Your task to perform on an android device: Go to battery settings Image 0: 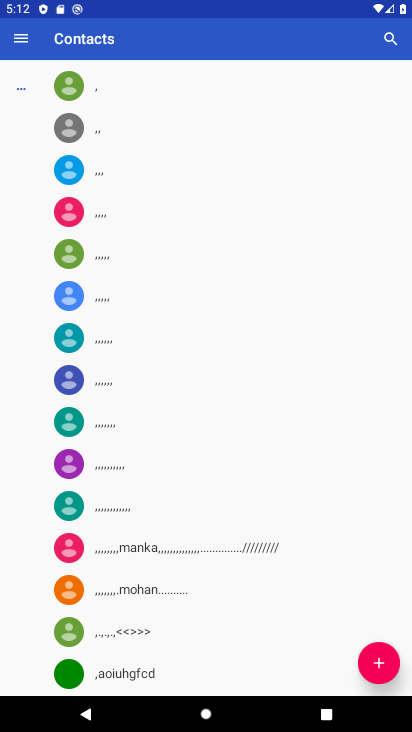
Step 0: press back button
Your task to perform on an android device: Go to battery settings Image 1: 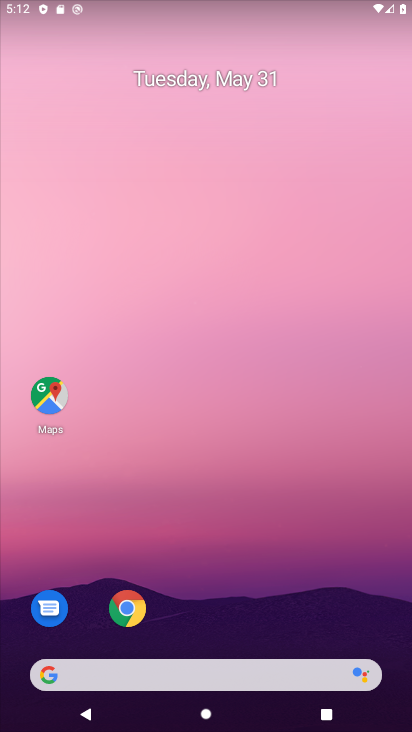
Step 1: drag from (274, 565) to (233, 64)
Your task to perform on an android device: Go to battery settings Image 2: 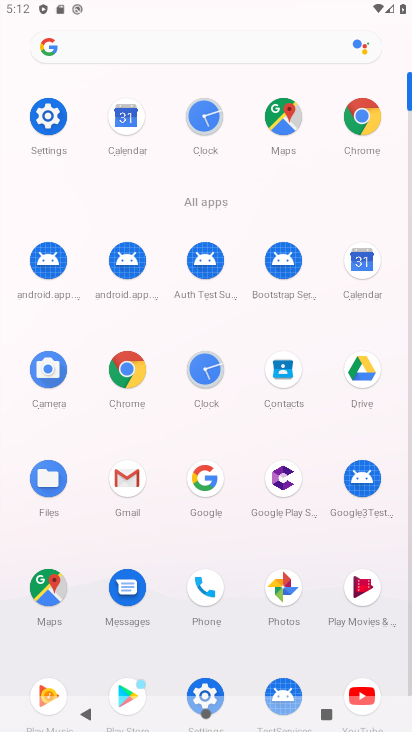
Step 2: click (49, 115)
Your task to perform on an android device: Go to battery settings Image 3: 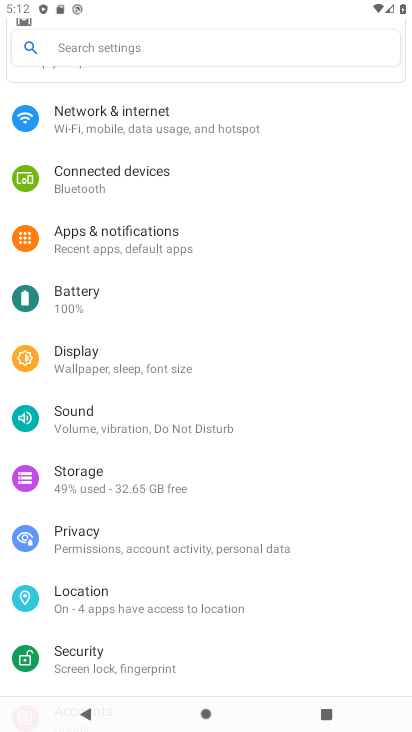
Step 3: click (91, 313)
Your task to perform on an android device: Go to battery settings Image 4: 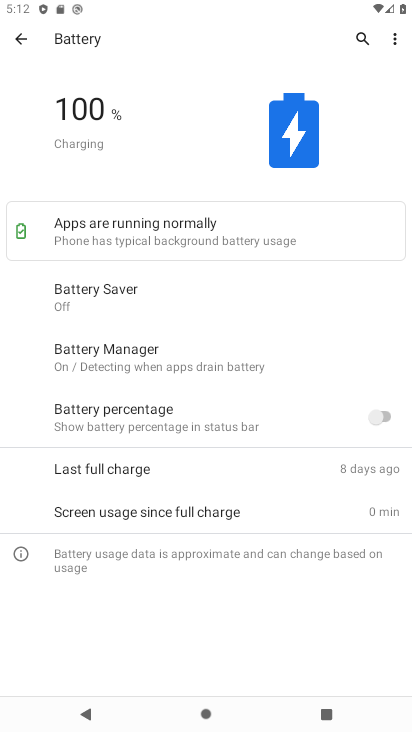
Step 4: task complete